Your task to perform on an android device: toggle sleep mode Image 0: 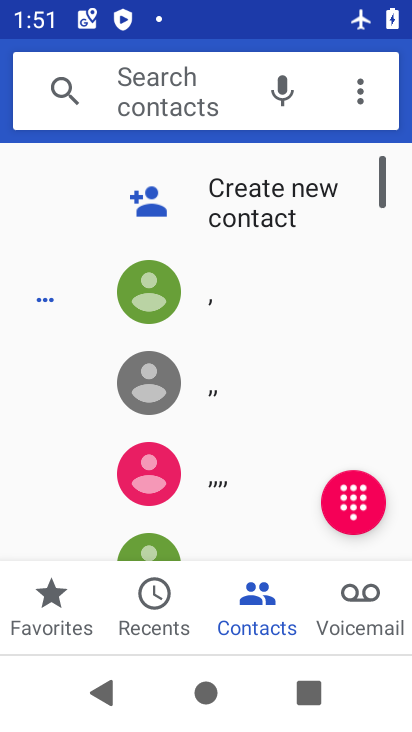
Step 0: press home button
Your task to perform on an android device: toggle sleep mode Image 1: 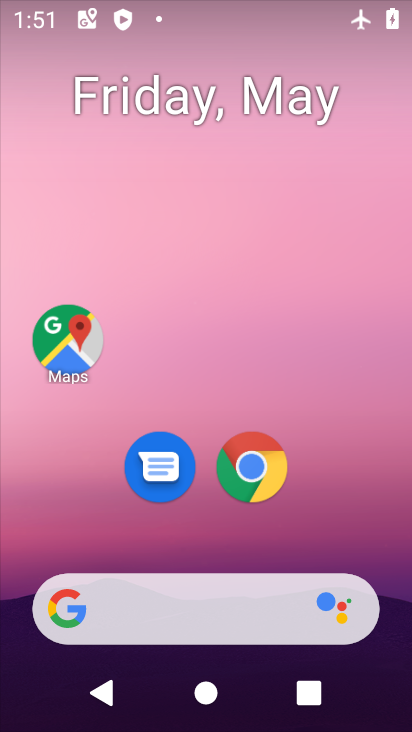
Step 1: drag from (353, 434) to (379, 9)
Your task to perform on an android device: toggle sleep mode Image 2: 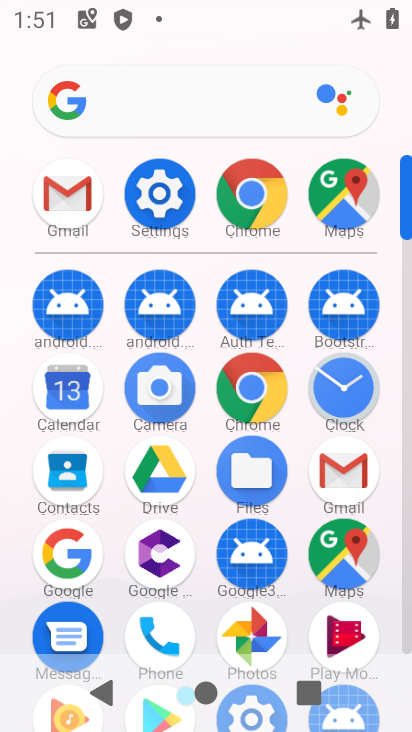
Step 2: click (148, 189)
Your task to perform on an android device: toggle sleep mode Image 3: 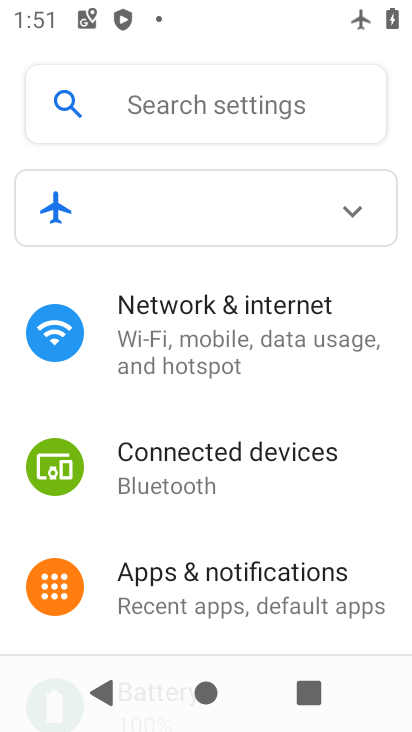
Step 3: drag from (209, 501) to (266, 167)
Your task to perform on an android device: toggle sleep mode Image 4: 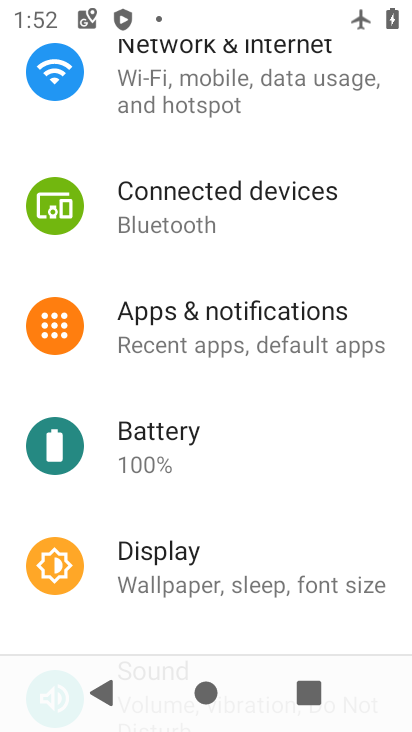
Step 4: drag from (146, 513) to (221, 122)
Your task to perform on an android device: toggle sleep mode Image 5: 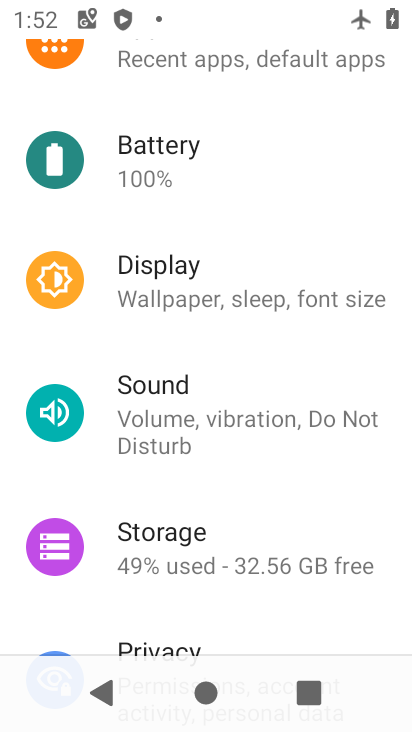
Step 5: drag from (179, 563) to (210, 201)
Your task to perform on an android device: toggle sleep mode Image 6: 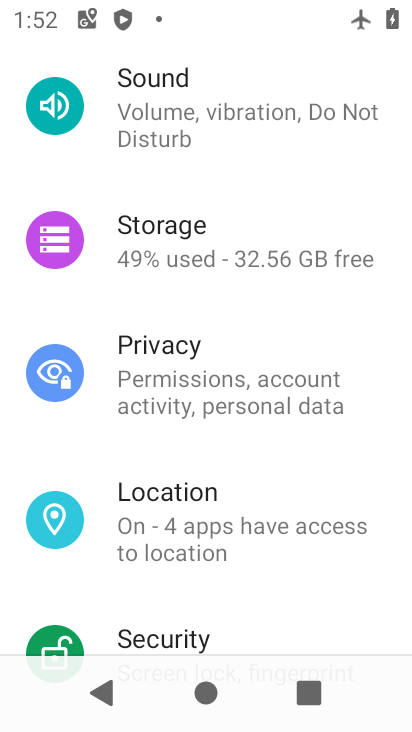
Step 6: drag from (200, 511) to (180, 245)
Your task to perform on an android device: toggle sleep mode Image 7: 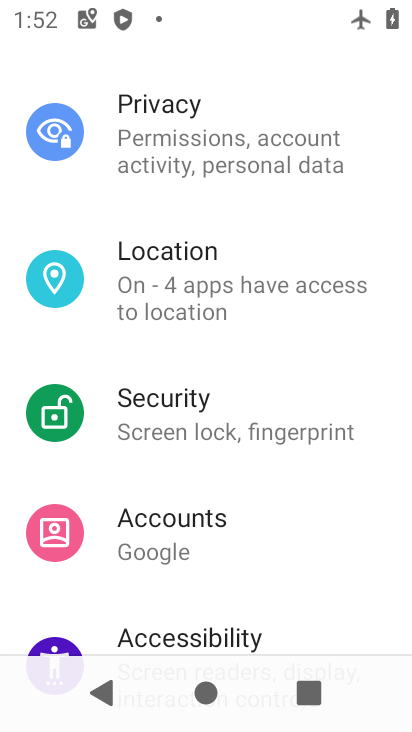
Step 7: drag from (211, 489) to (197, 163)
Your task to perform on an android device: toggle sleep mode Image 8: 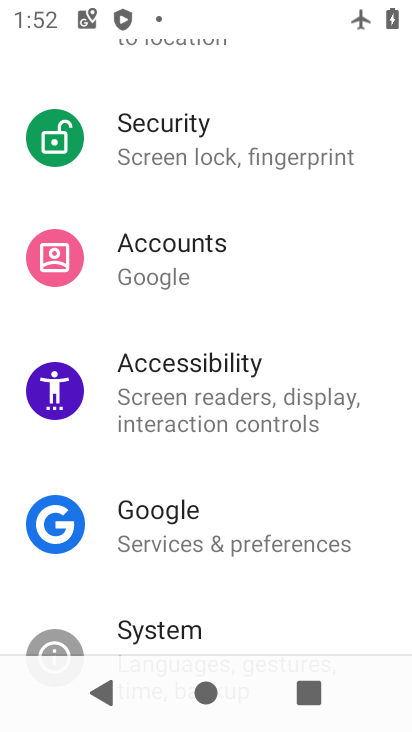
Step 8: drag from (184, 450) to (147, 119)
Your task to perform on an android device: toggle sleep mode Image 9: 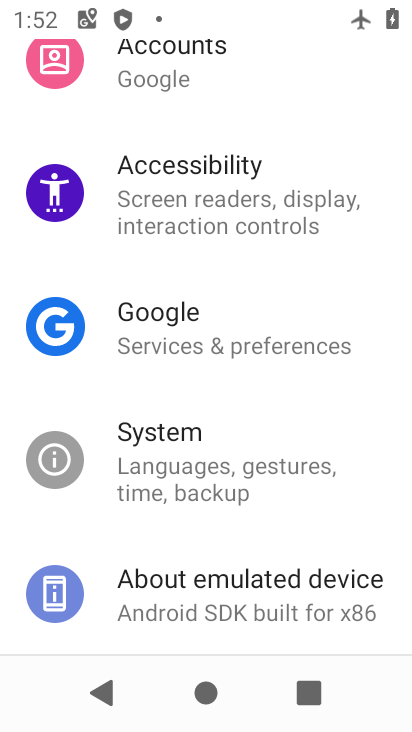
Step 9: drag from (147, 118) to (191, 455)
Your task to perform on an android device: toggle sleep mode Image 10: 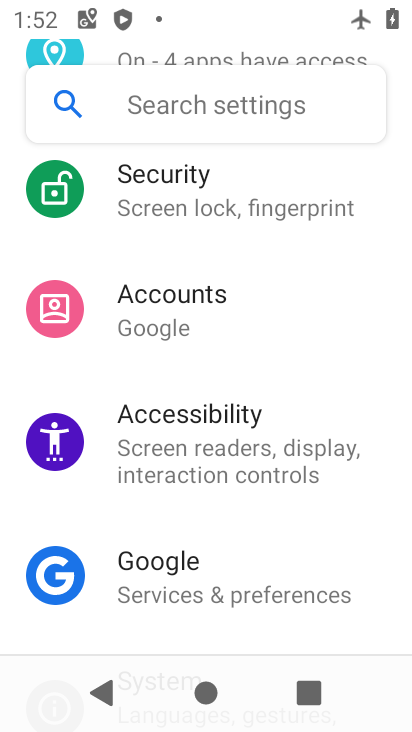
Step 10: drag from (249, 202) to (238, 570)
Your task to perform on an android device: toggle sleep mode Image 11: 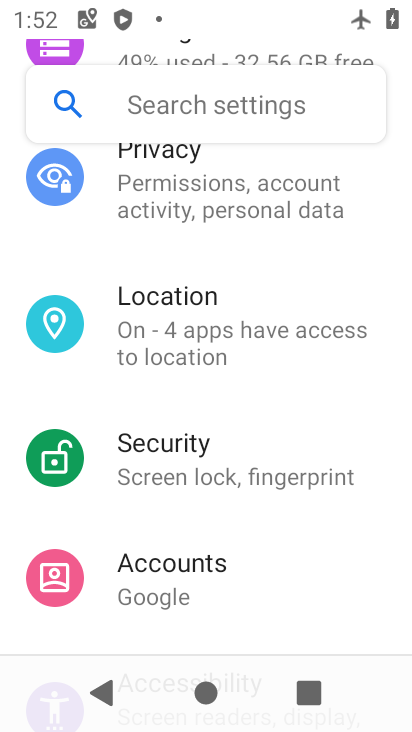
Step 11: drag from (290, 317) to (264, 697)
Your task to perform on an android device: toggle sleep mode Image 12: 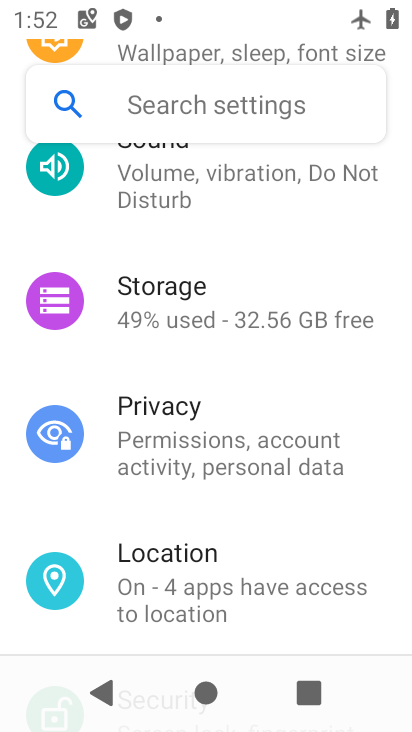
Step 12: drag from (279, 238) to (220, 646)
Your task to perform on an android device: toggle sleep mode Image 13: 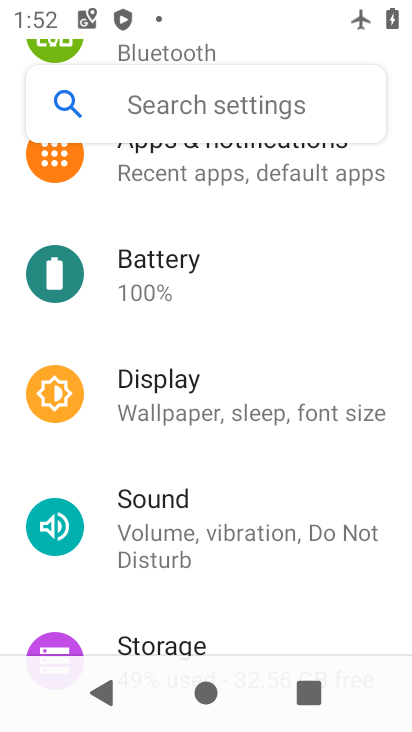
Step 13: drag from (244, 329) to (234, 655)
Your task to perform on an android device: toggle sleep mode Image 14: 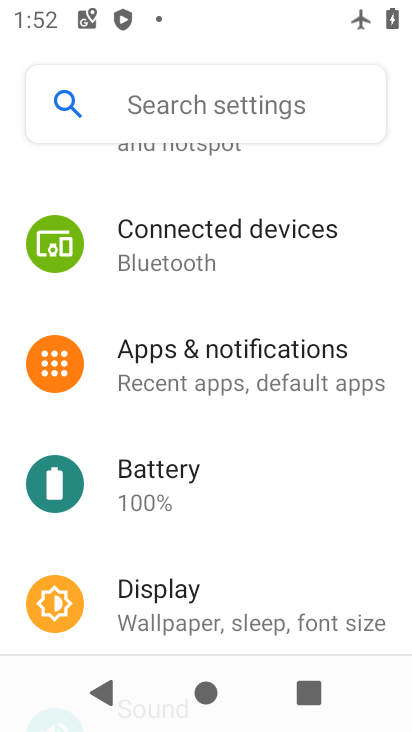
Step 14: drag from (251, 330) to (263, 672)
Your task to perform on an android device: toggle sleep mode Image 15: 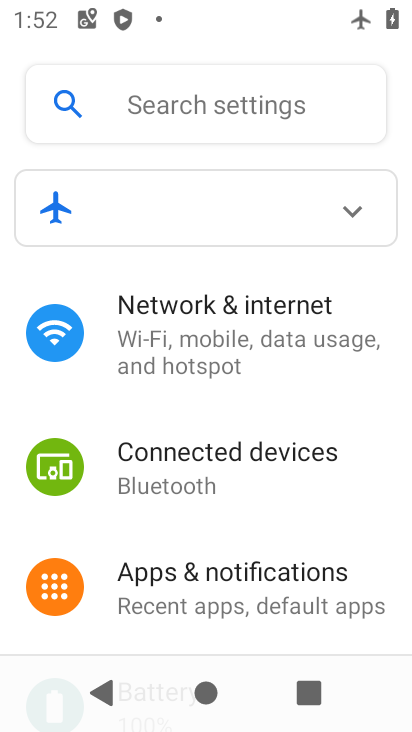
Step 15: drag from (275, 363) to (265, 642)
Your task to perform on an android device: toggle sleep mode Image 16: 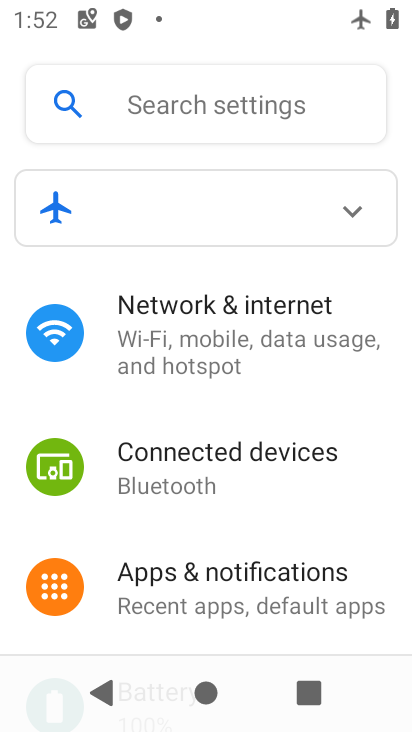
Step 16: drag from (241, 322) to (255, 633)
Your task to perform on an android device: toggle sleep mode Image 17: 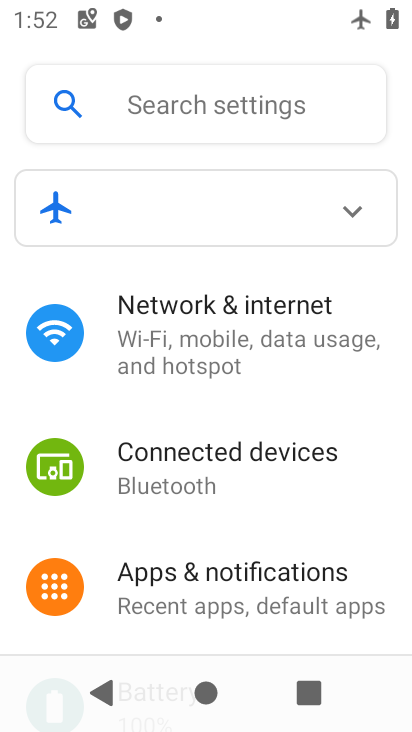
Step 17: drag from (216, 458) to (221, 604)
Your task to perform on an android device: toggle sleep mode Image 18: 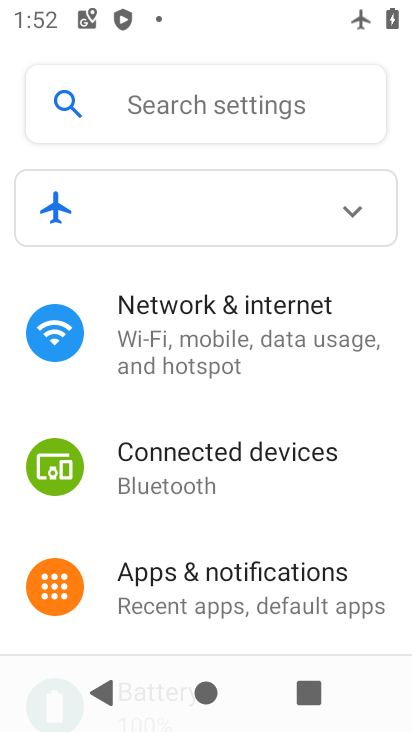
Step 18: drag from (204, 485) to (194, 264)
Your task to perform on an android device: toggle sleep mode Image 19: 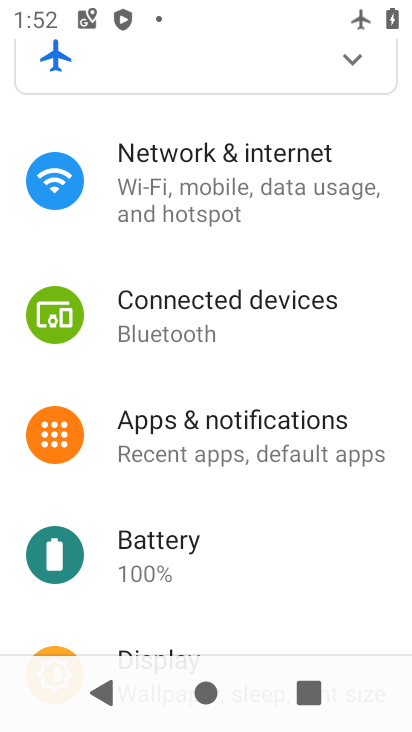
Step 19: drag from (181, 551) to (182, 198)
Your task to perform on an android device: toggle sleep mode Image 20: 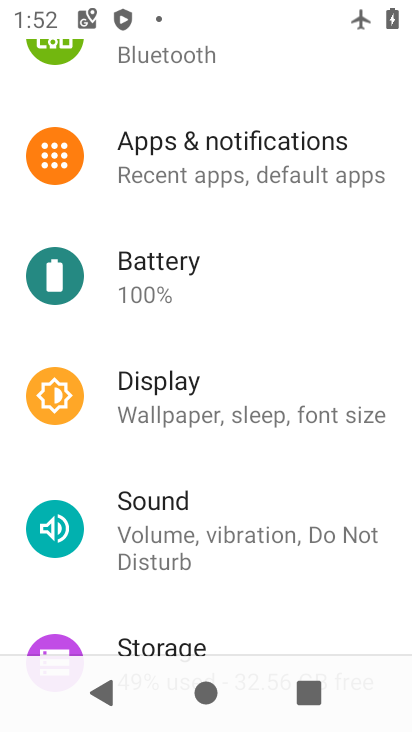
Step 20: click (155, 416)
Your task to perform on an android device: toggle sleep mode Image 21: 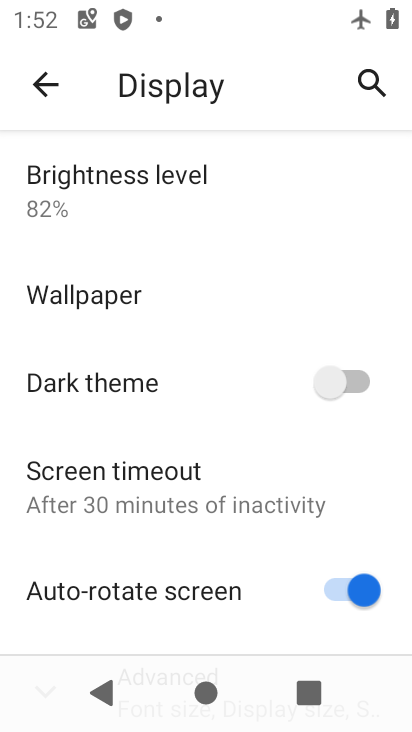
Step 21: click (166, 488)
Your task to perform on an android device: toggle sleep mode Image 22: 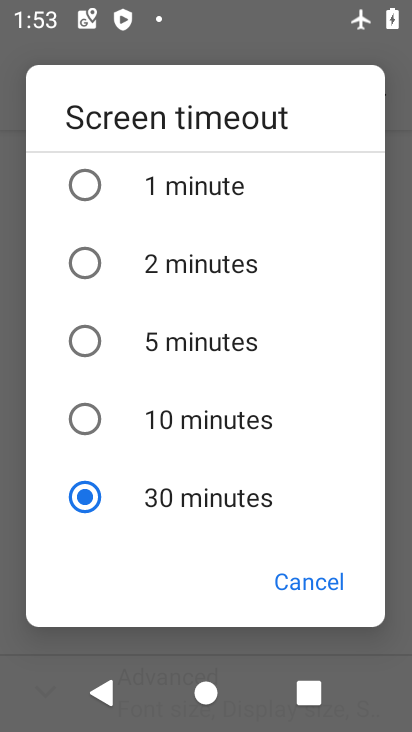
Step 22: click (86, 338)
Your task to perform on an android device: toggle sleep mode Image 23: 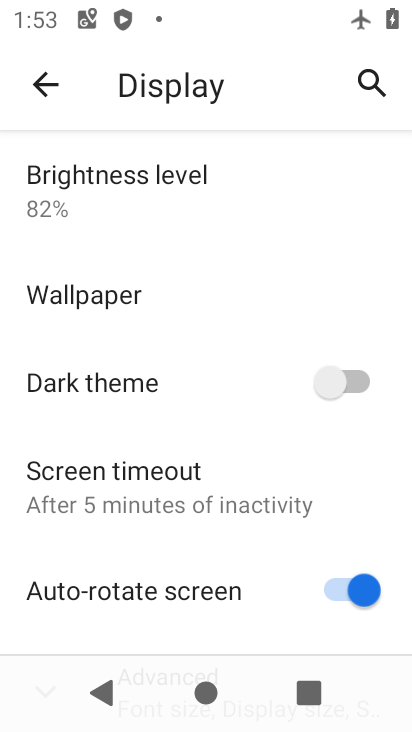
Step 23: task complete